Your task to perform on an android device: Turn off the flashlight Image 0: 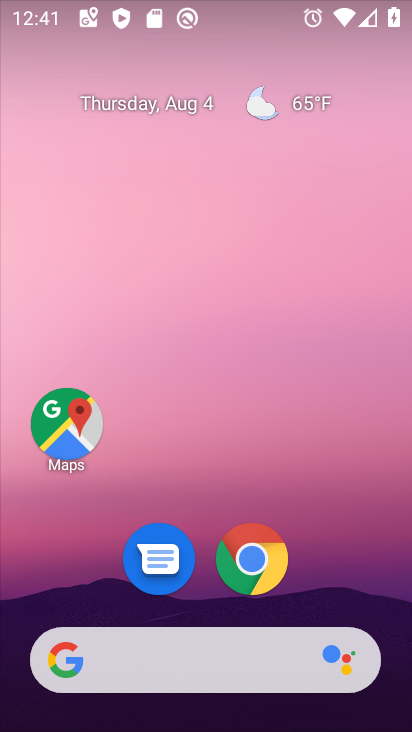
Step 0: press home button
Your task to perform on an android device: Turn off the flashlight Image 1: 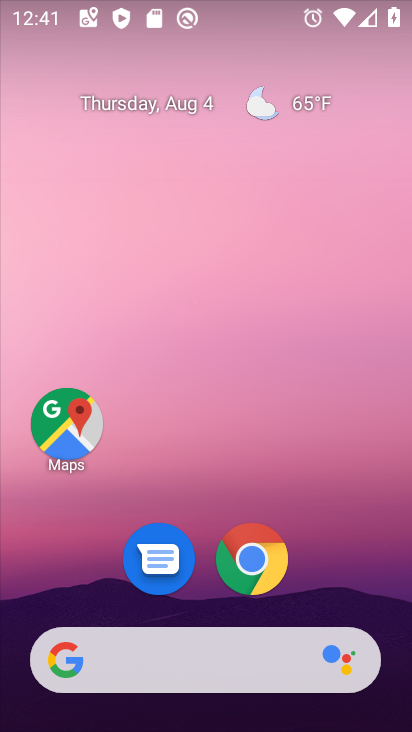
Step 1: drag from (206, 659) to (164, 118)
Your task to perform on an android device: Turn off the flashlight Image 2: 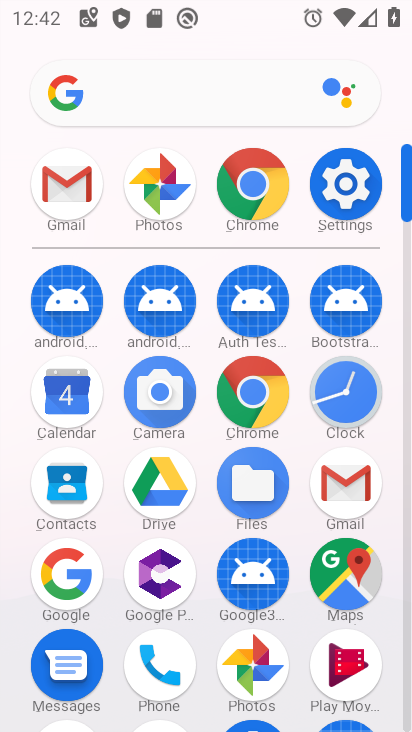
Step 2: click (344, 183)
Your task to perform on an android device: Turn off the flashlight Image 3: 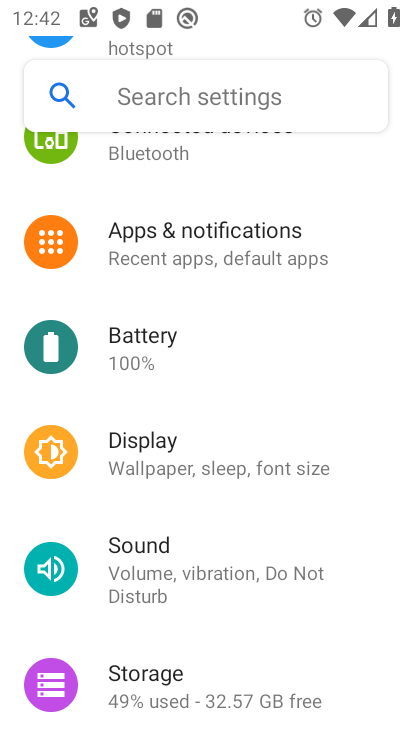
Step 3: drag from (282, 211) to (247, 476)
Your task to perform on an android device: Turn off the flashlight Image 4: 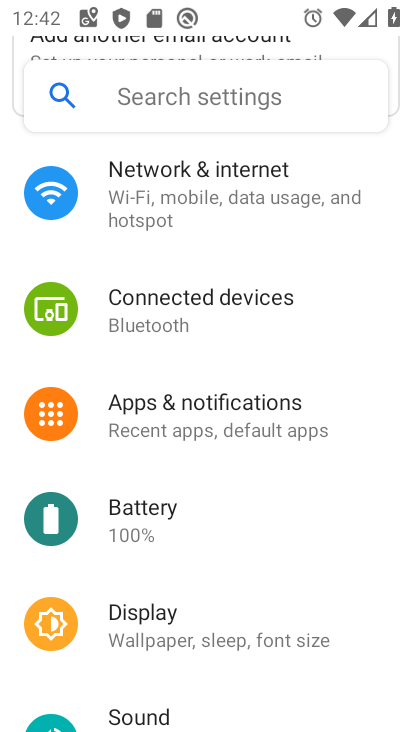
Step 4: drag from (205, 171) to (225, 351)
Your task to perform on an android device: Turn off the flashlight Image 5: 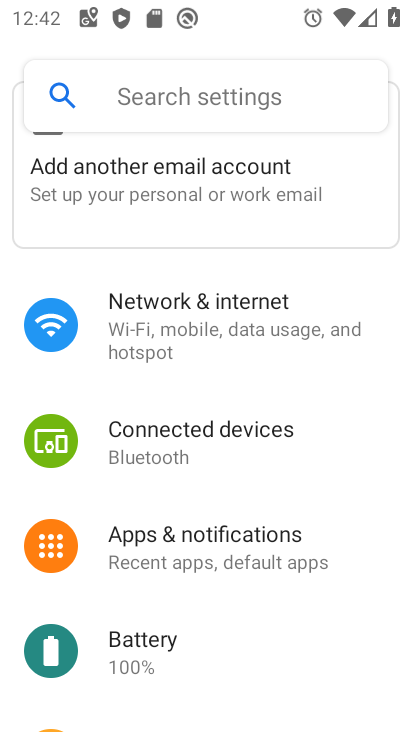
Step 5: click (214, 92)
Your task to perform on an android device: Turn off the flashlight Image 6: 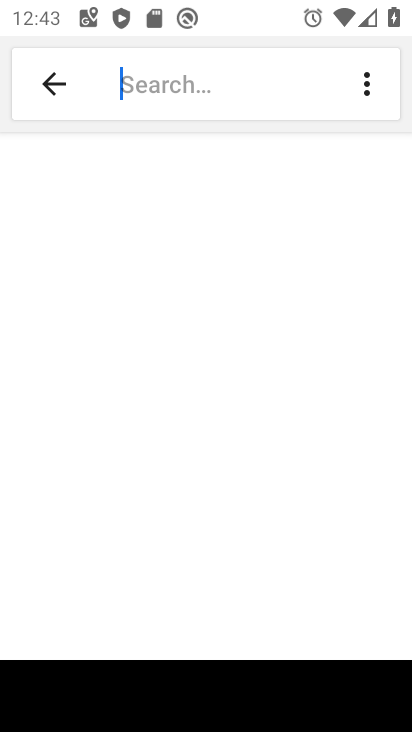
Step 6: type "flashlight"
Your task to perform on an android device: Turn off the flashlight Image 7: 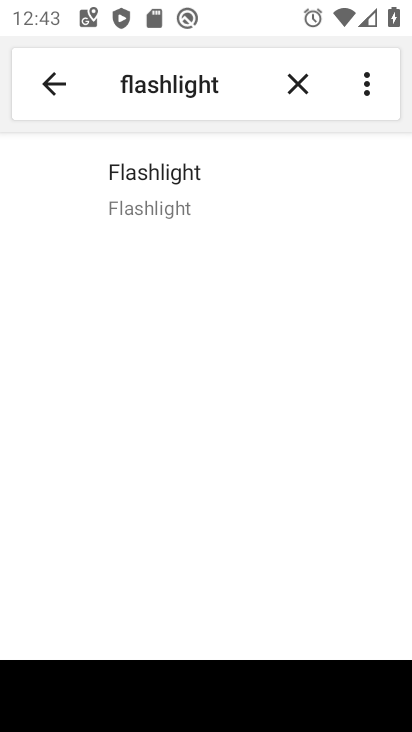
Step 7: click (150, 172)
Your task to perform on an android device: Turn off the flashlight Image 8: 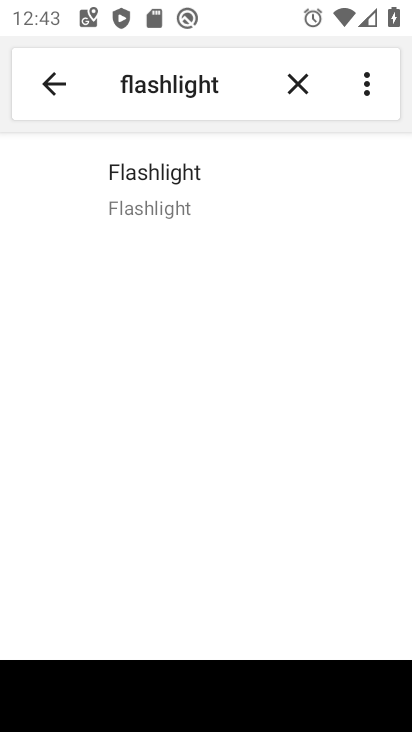
Step 8: task complete